Your task to perform on an android device: toggle notification dots Image 0: 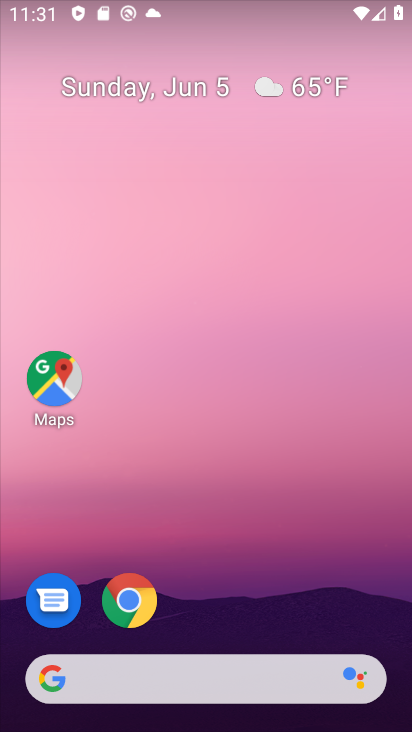
Step 0: drag from (402, 705) to (280, 90)
Your task to perform on an android device: toggle notification dots Image 1: 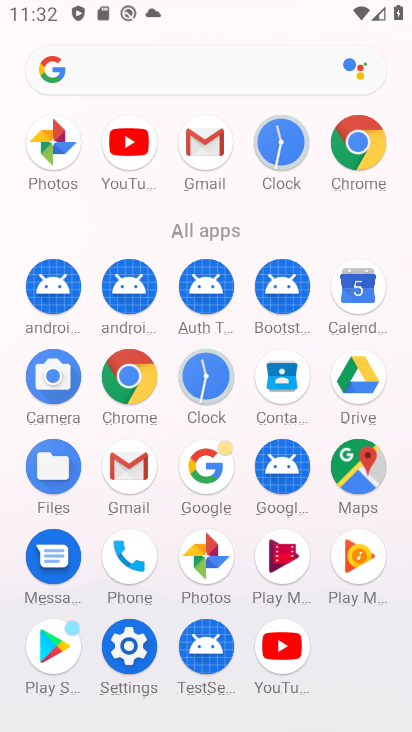
Step 1: click (119, 643)
Your task to perform on an android device: toggle notification dots Image 2: 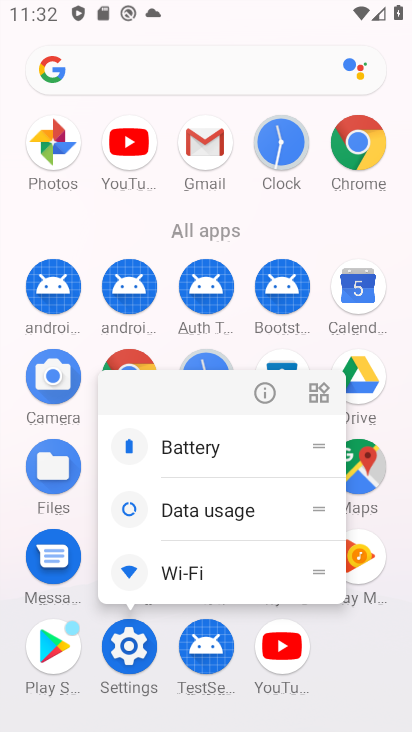
Step 2: click (139, 635)
Your task to perform on an android device: toggle notification dots Image 3: 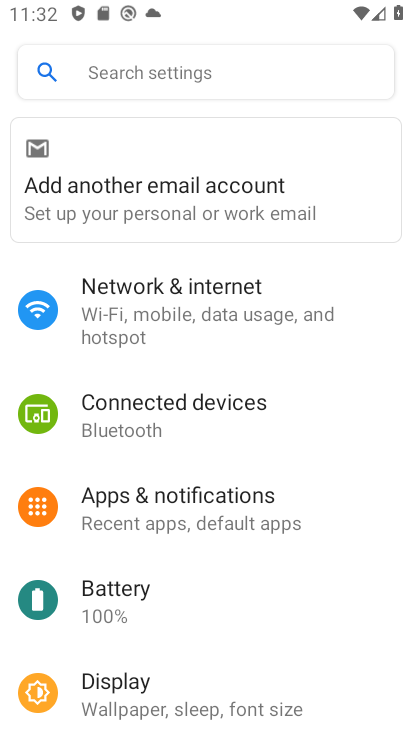
Step 3: drag from (227, 667) to (141, 270)
Your task to perform on an android device: toggle notification dots Image 4: 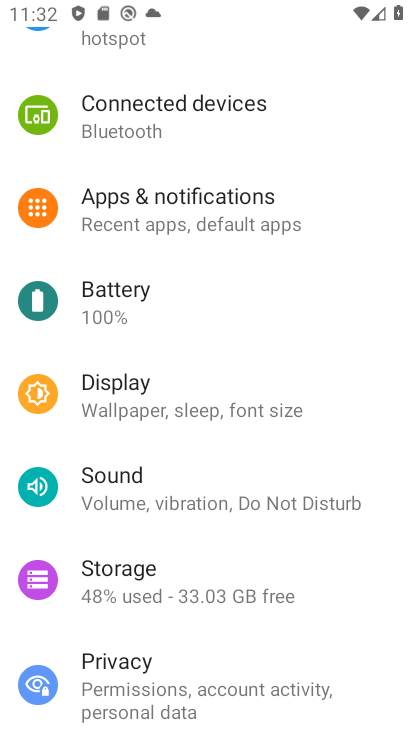
Step 4: drag from (363, 693) to (264, 217)
Your task to perform on an android device: toggle notification dots Image 5: 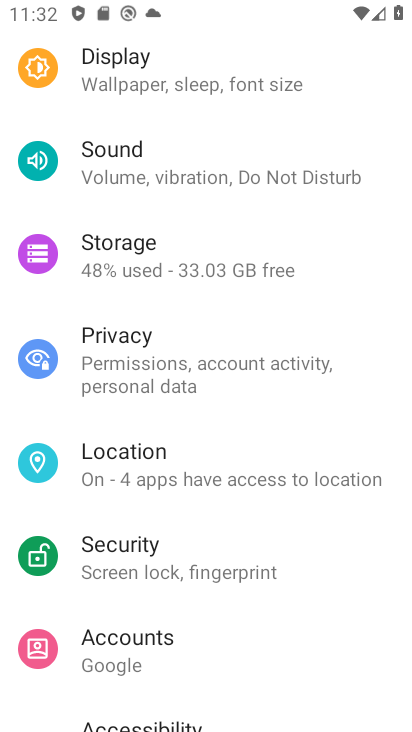
Step 5: drag from (190, 68) to (299, 616)
Your task to perform on an android device: toggle notification dots Image 6: 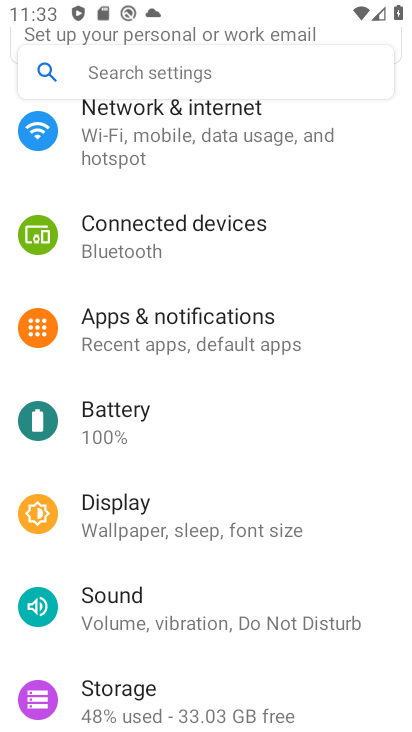
Step 6: click (199, 326)
Your task to perform on an android device: toggle notification dots Image 7: 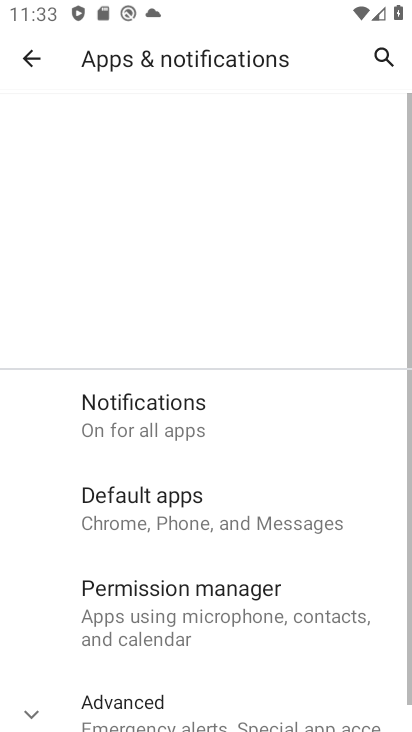
Step 7: click (191, 411)
Your task to perform on an android device: toggle notification dots Image 8: 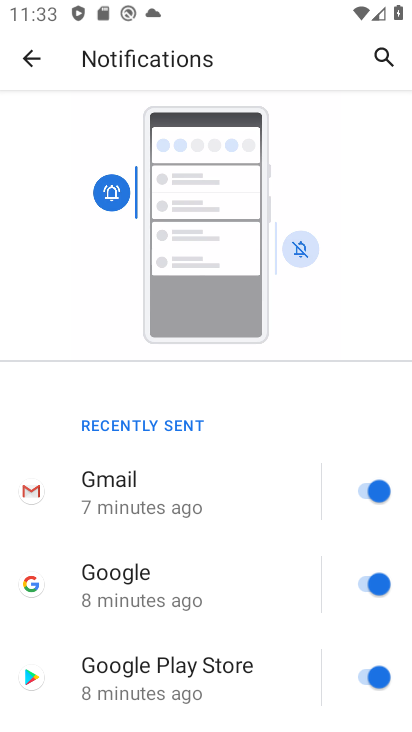
Step 8: drag from (260, 466) to (201, 175)
Your task to perform on an android device: toggle notification dots Image 9: 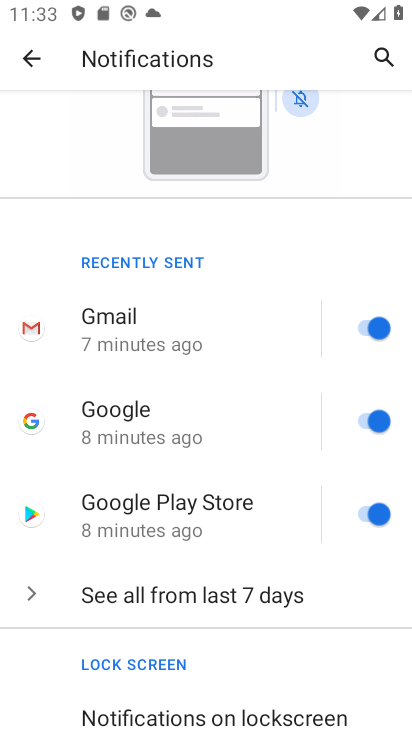
Step 9: drag from (268, 649) to (191, 179)
Your task to perform on an android device: toggle notification dots Image 10: 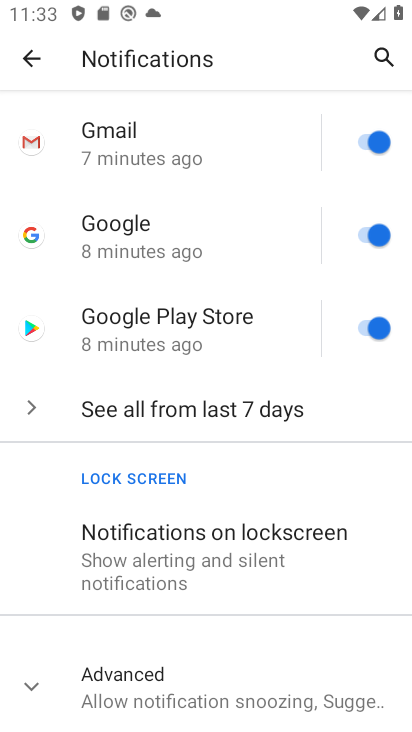
Step 10: click (50, 686)
Your task to perform on an android device: toggle notification dots Image 11: 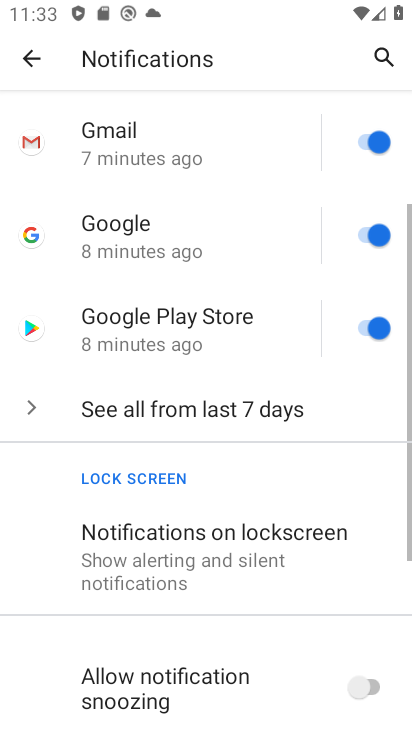
Step 11: drag from (274, 672) to (243, 166)
Your task to perform on an android device: toggle notification dots Image 12: 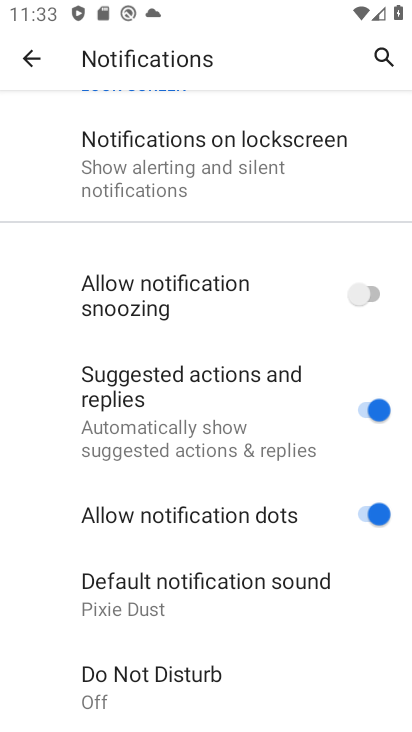
Step 12: drag from (265, 631) to (274, 266)
Your task to perform on an android device: toggle notification dots Image 13: 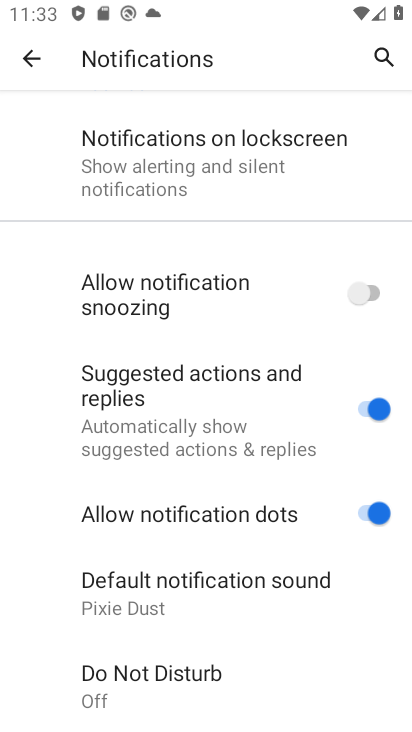
Step 13: click (359, 506)
Your task to perform on an android device: toggle notification dots Image 14: 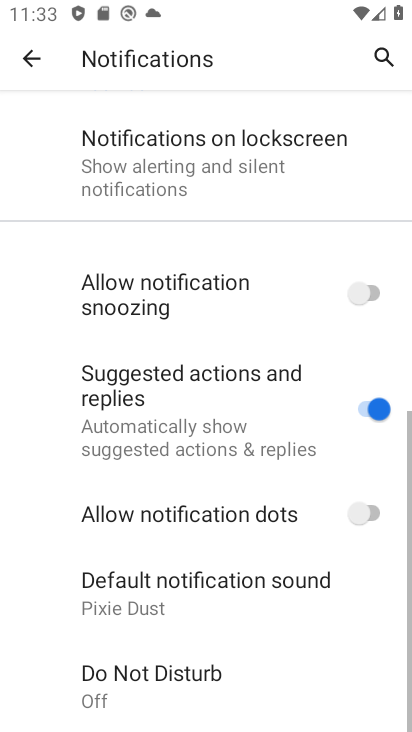
Step 14: task complete